Your task to perform on an android device: add a contact in the contacts app Image 0: 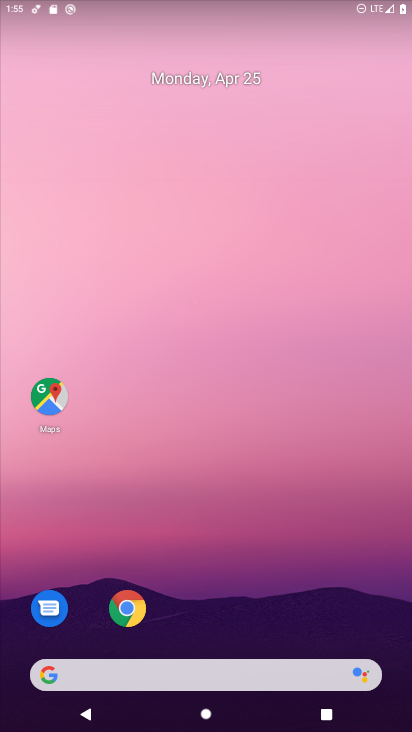
Step 0: drag from (342, 609) to (295, 104)
Your task to perform on an android device: add a contact in the contacts app Image 1: 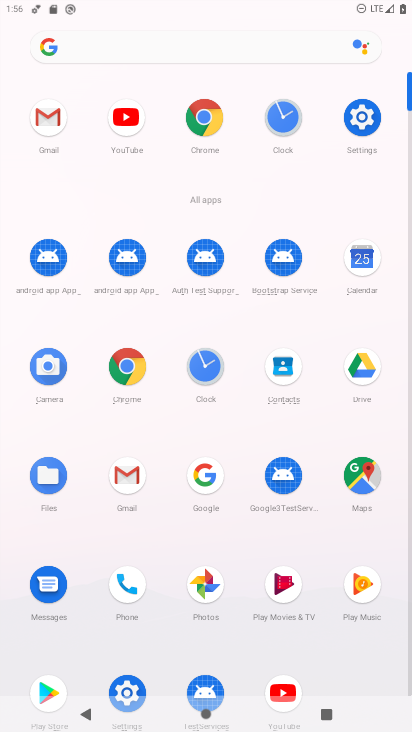
Step 1: click (291, 369)
Your task to perform on an android device: add a contact in the contacts app Image 2: 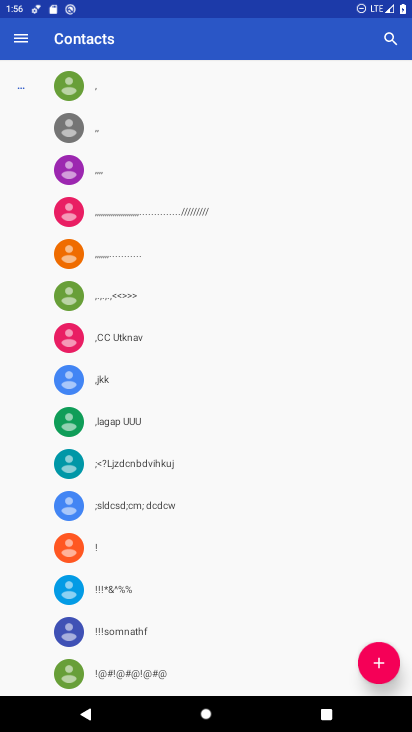
Step 2: click (383, 655)
Your task to perform on an android device: add a contact in the contacts app Image 3: 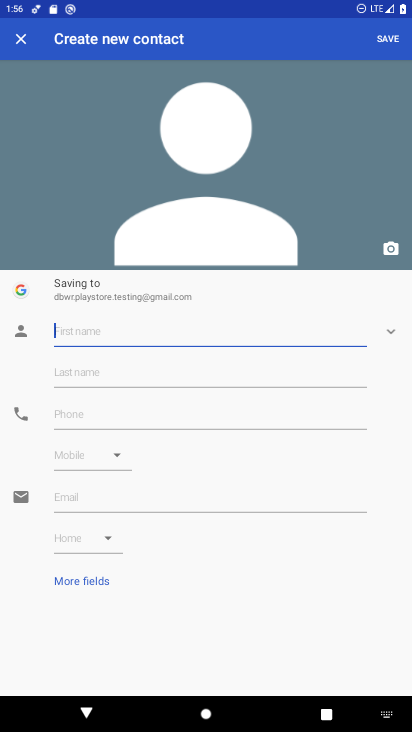
Step 3: type "seema"
Your task to perform on an android device: add a contact in the contacts app Image 4: 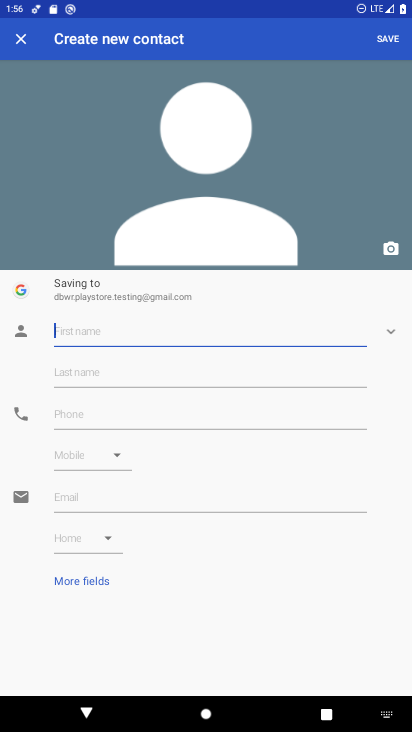
Step 4: click (379, 46)
Your task to perform on an android device: add a contact in the contacts app Image 5: 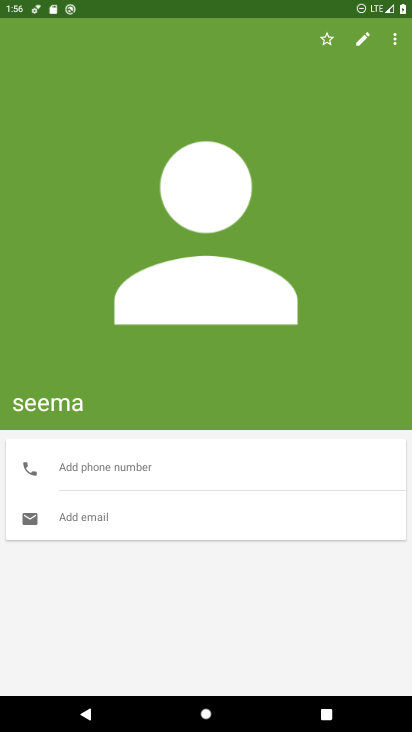
Step 5: task complete